Your task to perform on an android device: Turn on the flashlight Image 0: 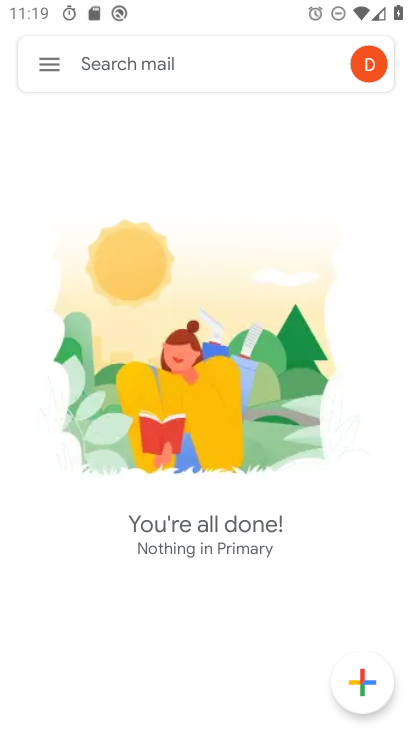
Step 0: press home button
Your task to perform on an android device: Turn on the flashlight Image 1: 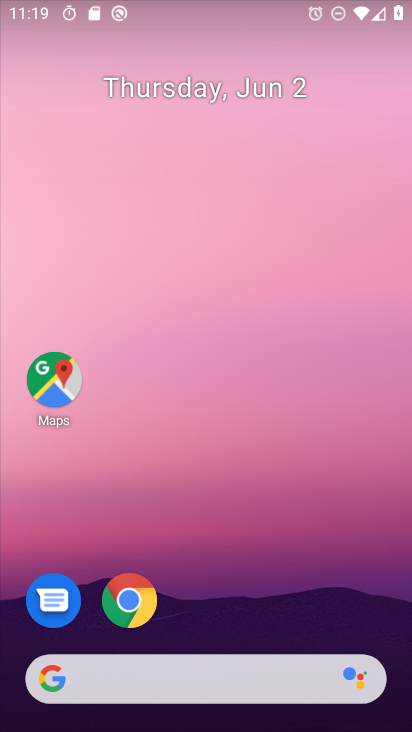
Step 1: drag from (207, 589) to (219, 104)
Your task to perform on an android device: Turn on the flashlight Image 2: 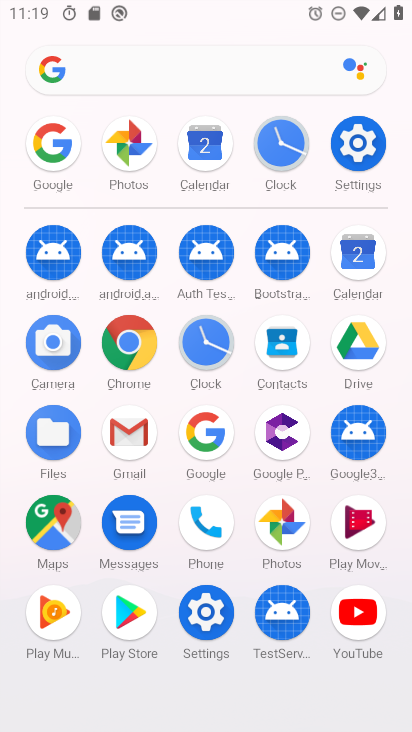
Step 2: click (355, 157)
Your task to perform on an android device: Turn on the flashlight Image 3: 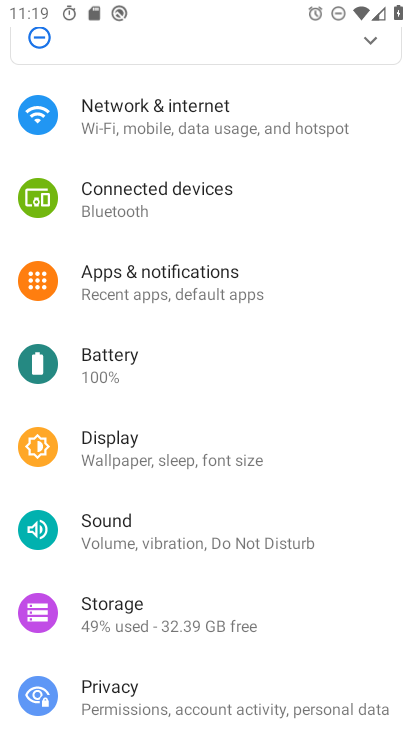
Step 3: drag from (220, 150) to (219, 402)
Your task to perform on an android device: Turn on the flashlight Image 4: 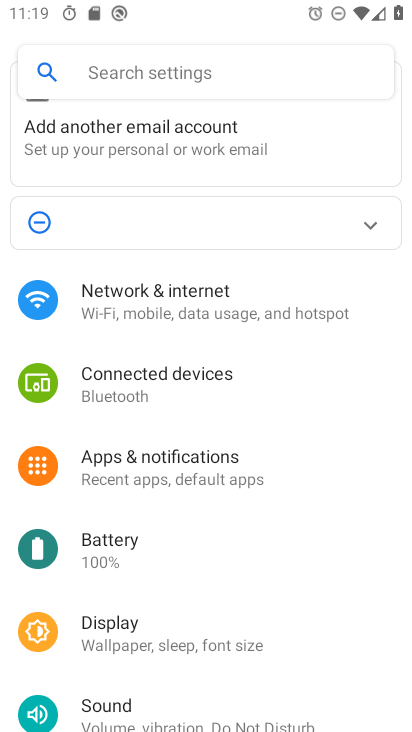
Step 4: click (157, 77)
Your task to perform on an android device: Turn on the flashlight Image 5: 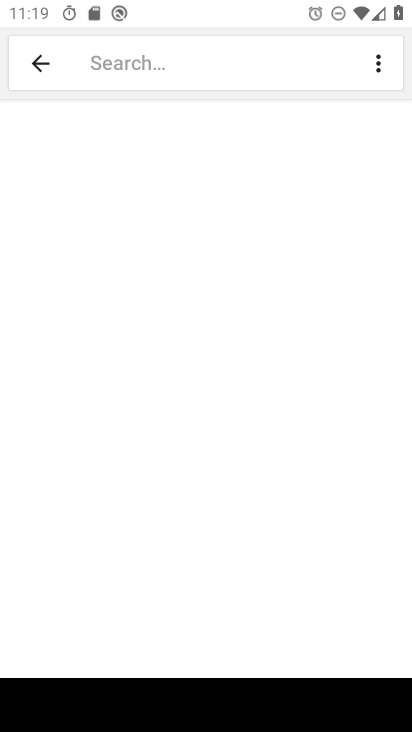
Step 5: type "flash"
Your task to perform on an android device: Turn on the flashlight Image 6: 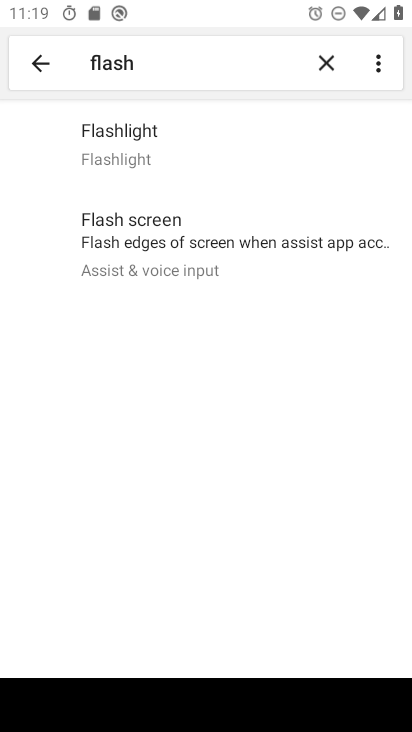
Step 6: task complete